Your task to perform on an android device: Find coffee shops on Maps Image 0: 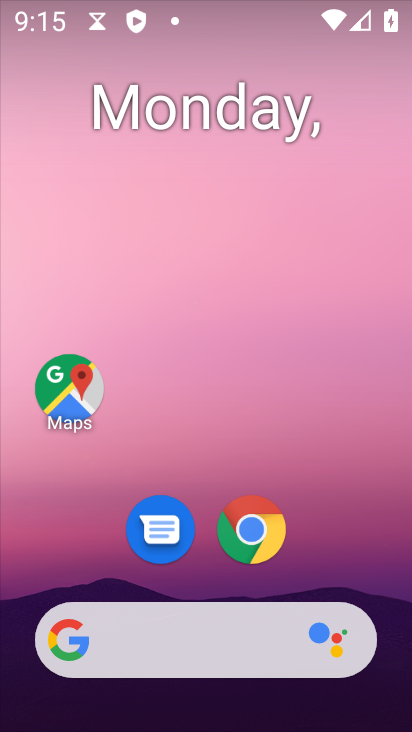
Step 0: drag from (266, 601) to (189, 255)
Your task to perform on an android device: Find coffee shops on Maps Image 1: 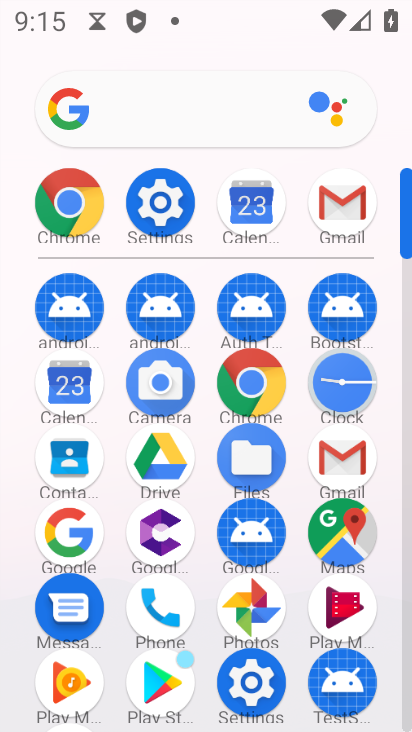
Step 1: click (325, 532)
Your task to perform on an android device: Find coffee shops on Maps Image 2: 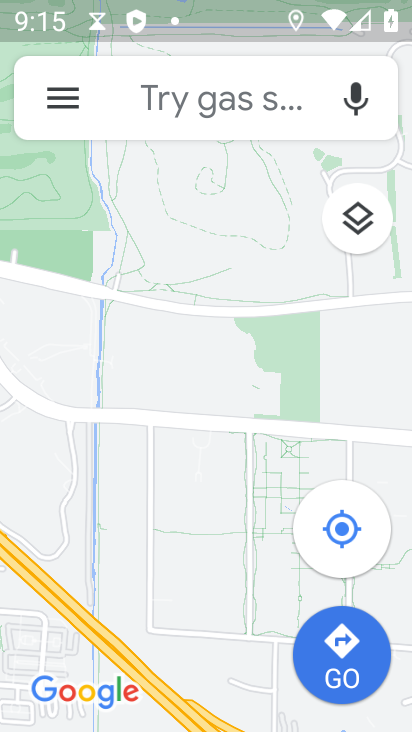
Step 2: click (138, 87)
Your task to perform on an android device: Find coffee shops on Maps Image 3: 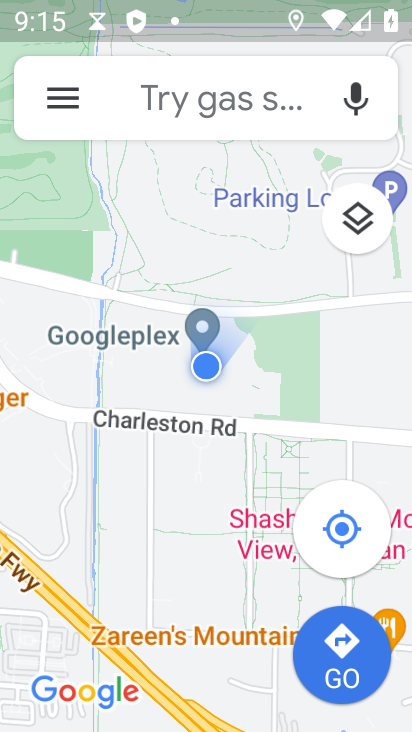
Step 3: click (152, 98)
Your task to perform on an android device: Find coffee shops on Maps Image 4: 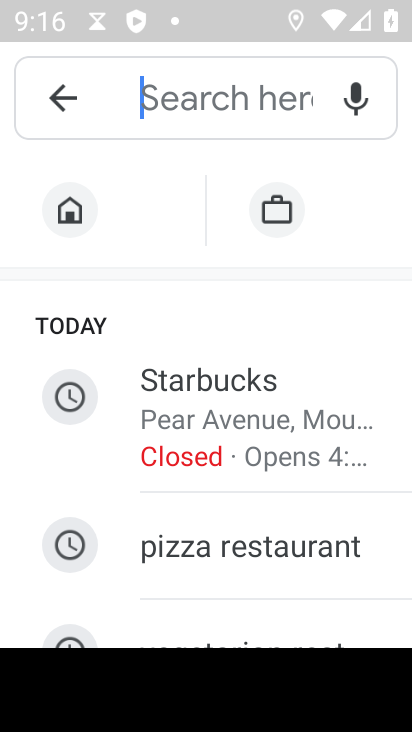
Step 4: type "coffee"
Your task to perform on an android device: Find coffee shops on Maps Image 5: 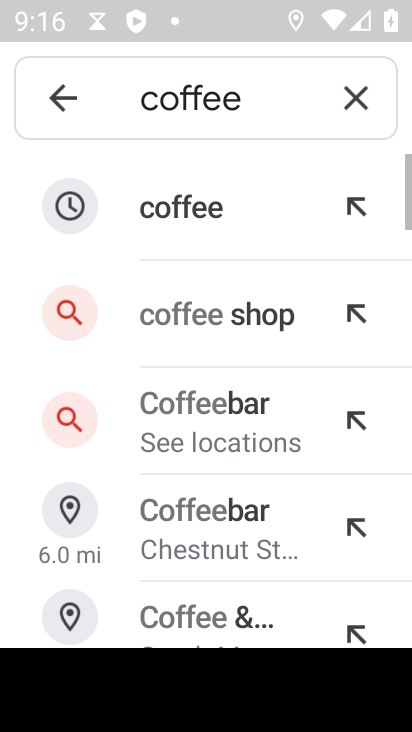
Step 5: click (192, 201)
Your task to perform on an android device: Find coffee shops on Maps Image 6: 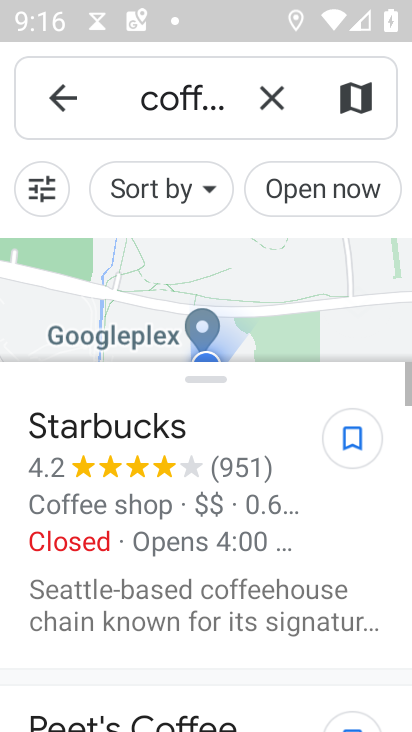
Step 6: task complete